Your task to perform on an android device: Go to Maps Image 0: 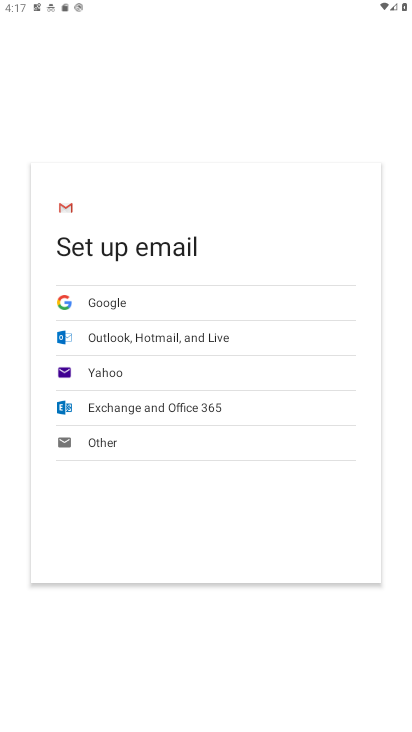
Step 0: press home button
Your task to perform on an android device: Go to Maps Image 1: 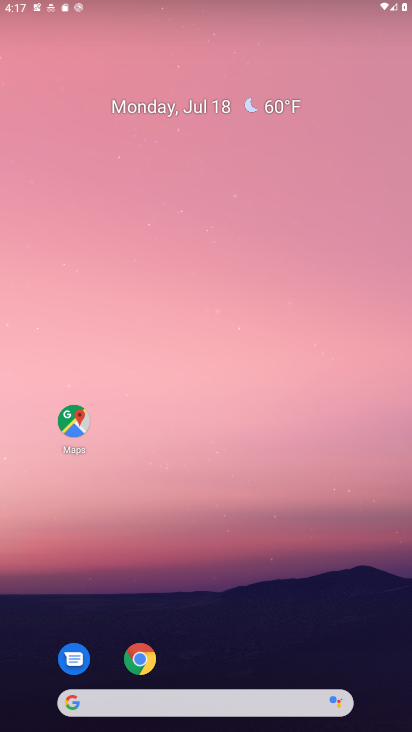
Step 1: drag from (215, 482) to (239, 44)
Your task to perform on an android device: Go to Maps Image 2: 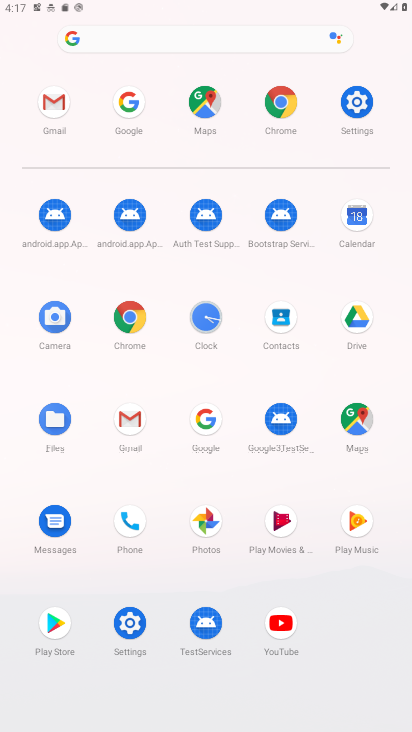
Step 2: click (355, 419)
Your task to perform on an android device: Go to Maps Image 3: 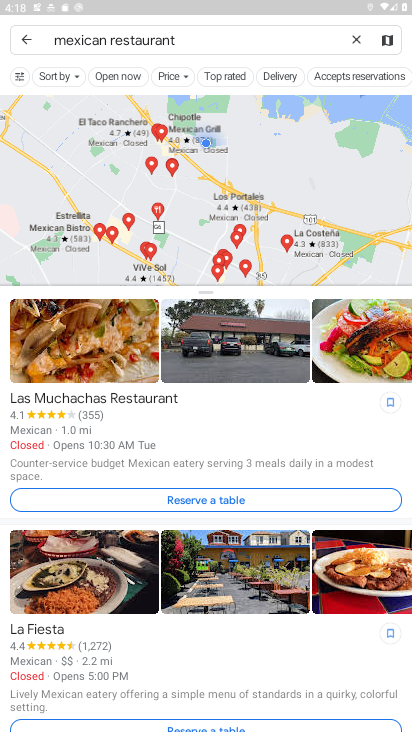
Step 3: task complete